Your task to perform on an android device: change notifications settings Image 0: 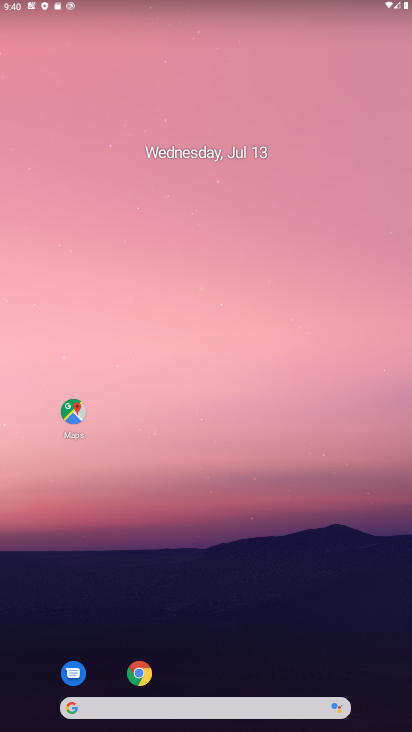
Step 0: drag from (207, 674) to (226, 80)
Your task to perform on an android device: change notifications settings Image 1: 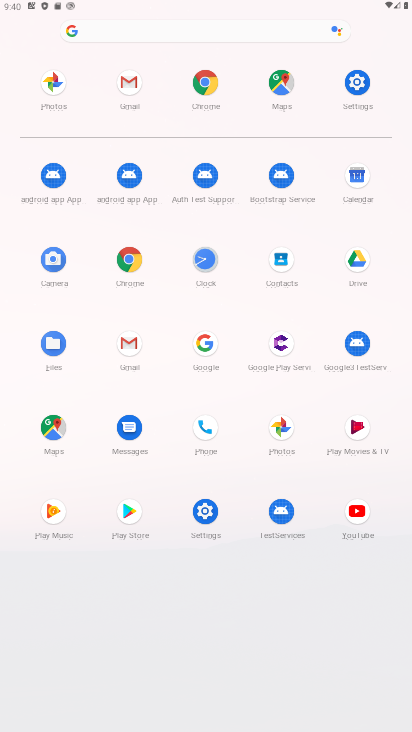
Step 1: click (356, 86)
Your task to perform on an android device: change notifications settings Image 2: 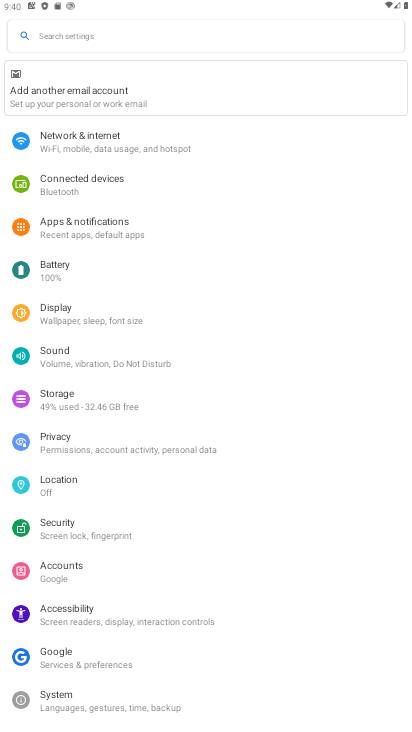
Step 2: click (92, 236)
Your task to perform on an android device: change notifications settings Image 3: 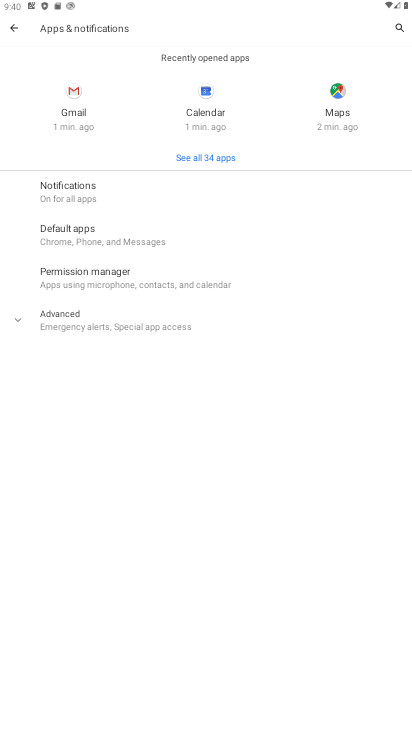
Step 3: click (132, 317)
Your task to perform on an android device: change notifications settings Image 4: 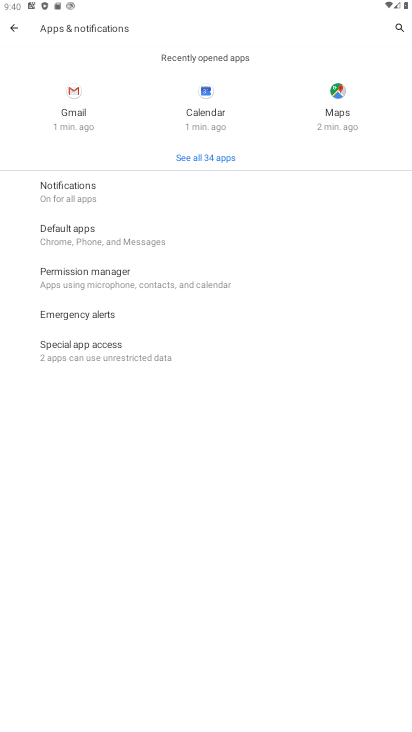
Step 4: click (159, 201)
Your task to perform on an android device: change notifications settings Image 5: 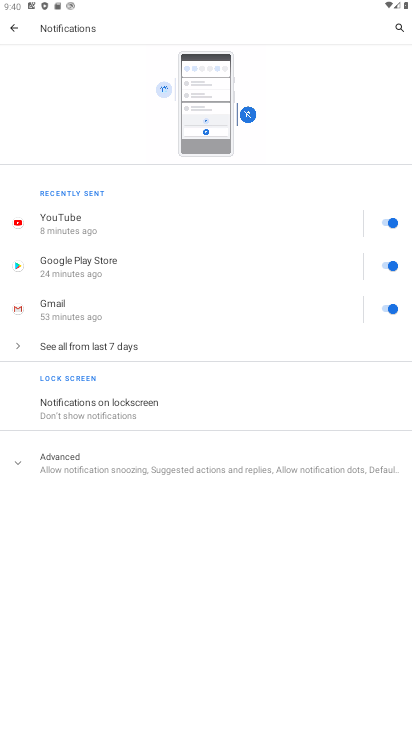
Step 5: click (202, 466)
Your task to perform on an android device: change notifications settings Image 6: 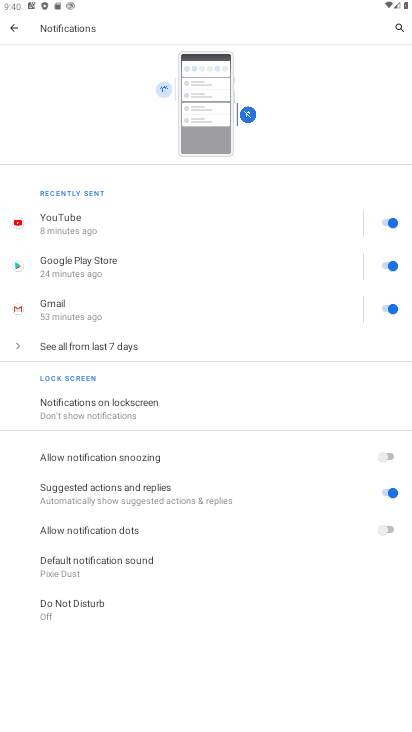
Step 6: click (386, 528)
Your task to perform on an android device: change notifications settings Image 7: 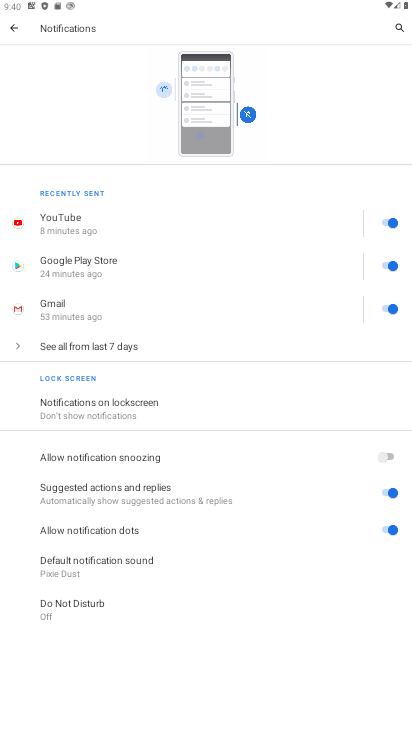
Step 7: click (384, 492)
Your task to perform on an android device: change notifications settings Image 8: 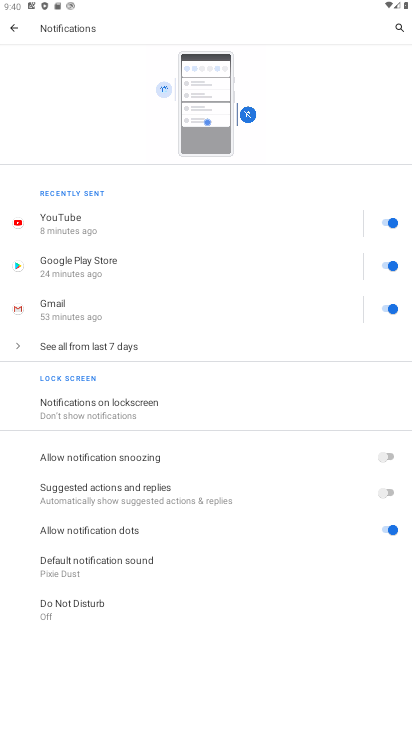
Step 8: click (391, 456)
Your task to perform on an android device: change notifications settings Image 9: 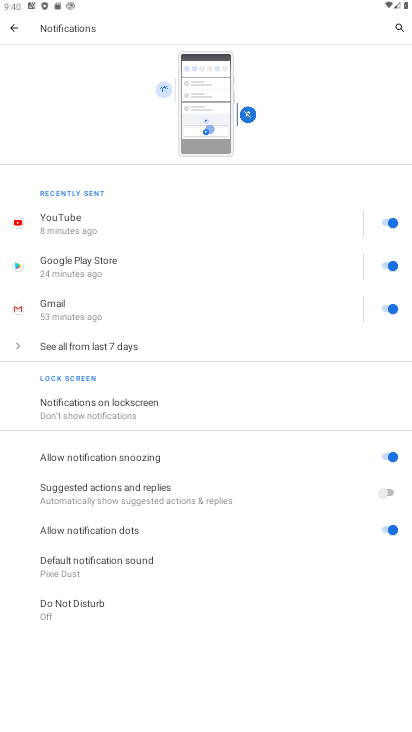
Step 9: task complete